Your task to perform on an android device: Go to ESPN.com Image 0: 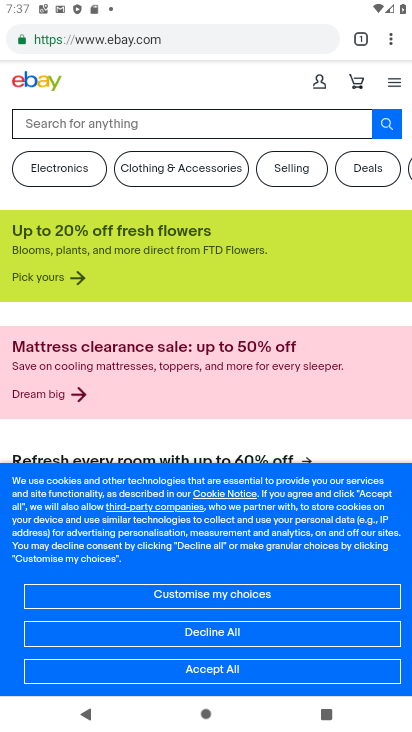
Step 0: click (218, 34)
Your task to perform on an android device: Go to ESPN.com Image 1: 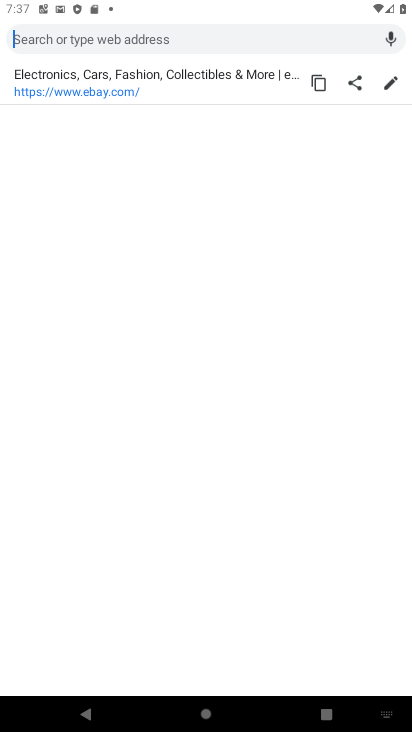
Step 1: type "espn.com"
Your task to perform on an android device: Go to ESPN.com Image 2: 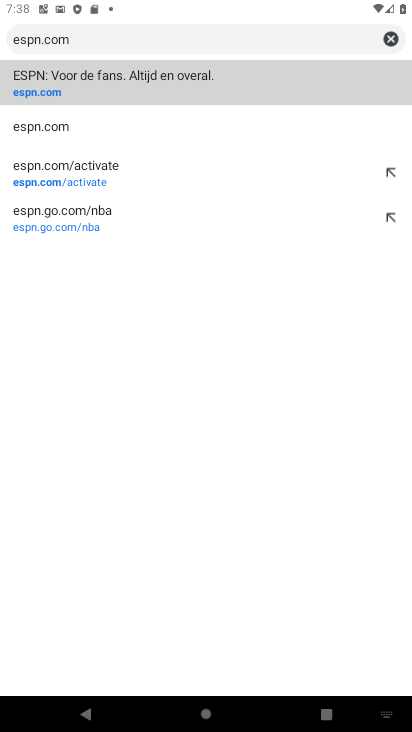
Step 2: click (180, 76)
Your task to perform on an android device: Go to ESPN.com Image 3: 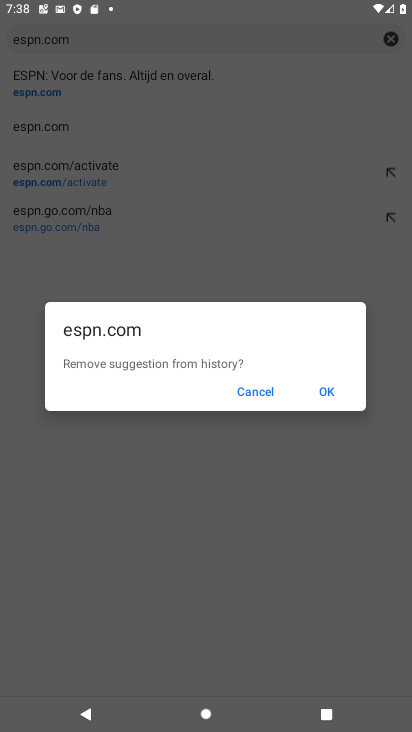
Step 3: task complete